Your task to perform on an android device: make emails show in primary in the gmail app Image 0: 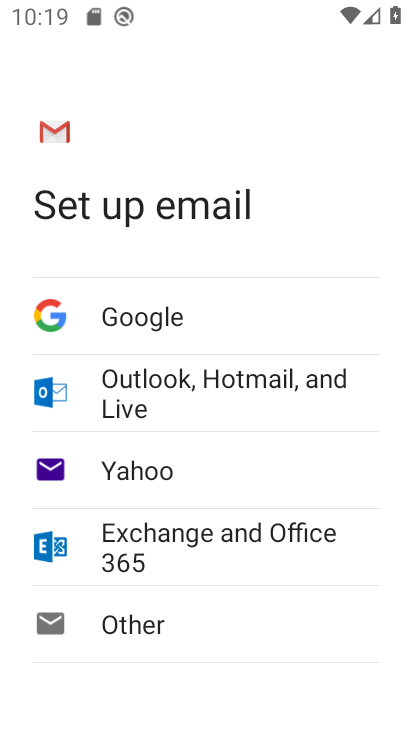
Step 0: press home button
Your task to perform on an android device: make emails show in primary in the gmail app Image 1: 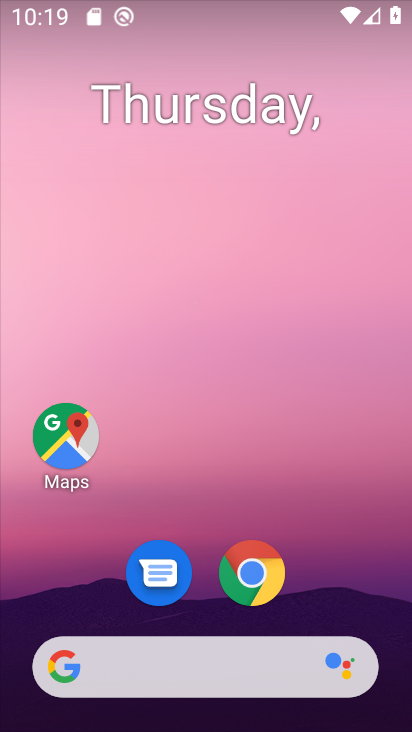
Step 1: drag from (164, 633) to (153, 0)
Your task to perform on an android device: make emails show in primary in the gmail app Image 2: 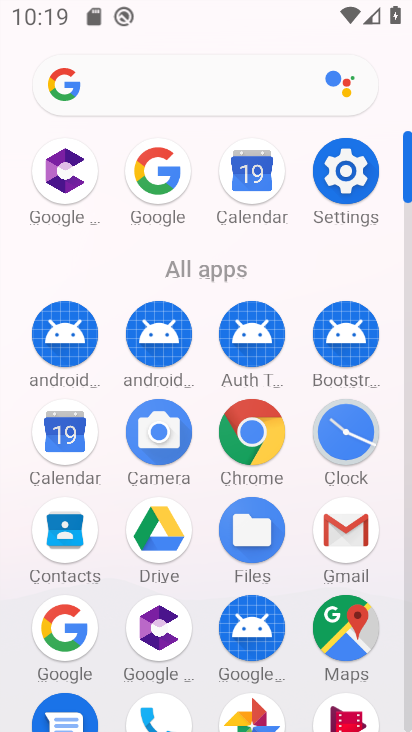
Step 2: click (371, 557)
Your task to perform on an android device: make emails show in primary in the gmail app Image 3: 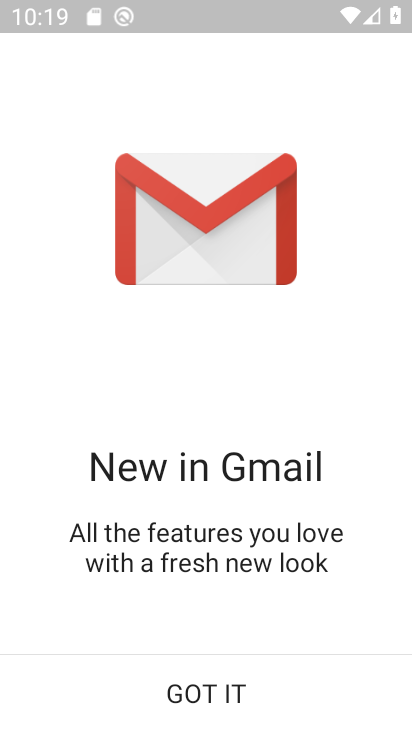
Step 3: click (225, 688)
Your task to perform on an android device: make emails show in primary in the gmail app Image 4: 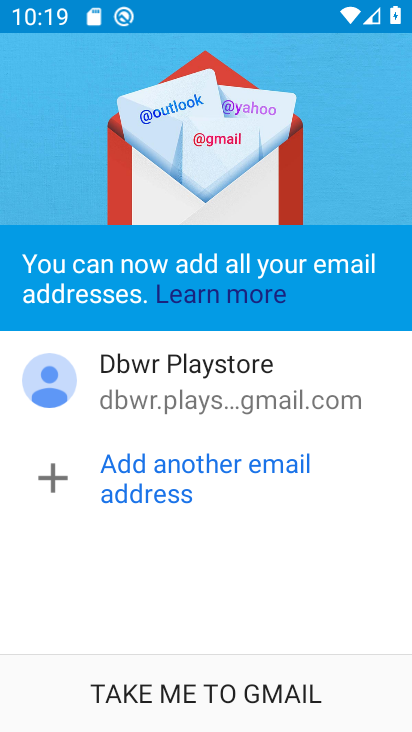
Step 4: click (225, 688)
Your task to perform on an android device: make emails show in primary in the gmail app Image 5: 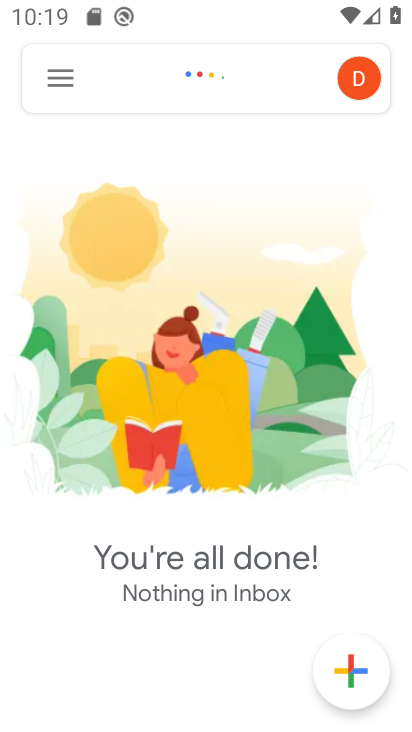
Step 5: click (43, 72)
Your task to perform on an android device: make emails show in primary in the gmail app Image 6: 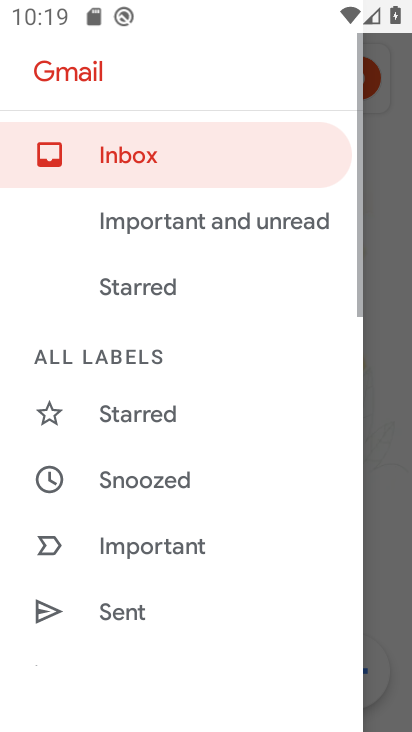
Step 6: drag from (162, 532) to (125, 1)
Your task to perform on an android device: make emails show in primary in the gmail app Image 7: 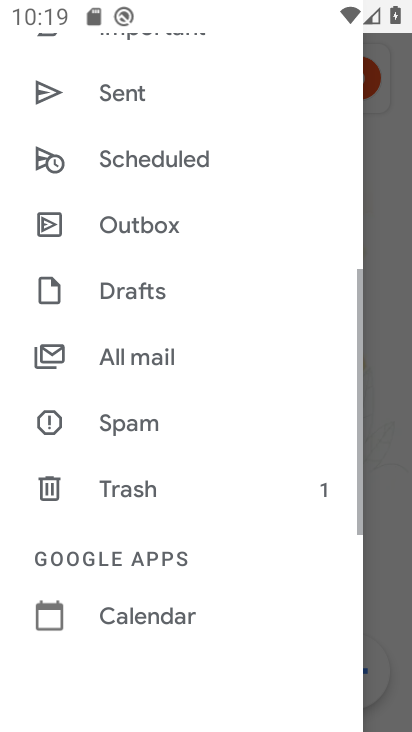
Step 7: drag from (109, 659) to (66, 52)
Your task to perform on an android device: make emails show in primary in the gmail app Image 8: 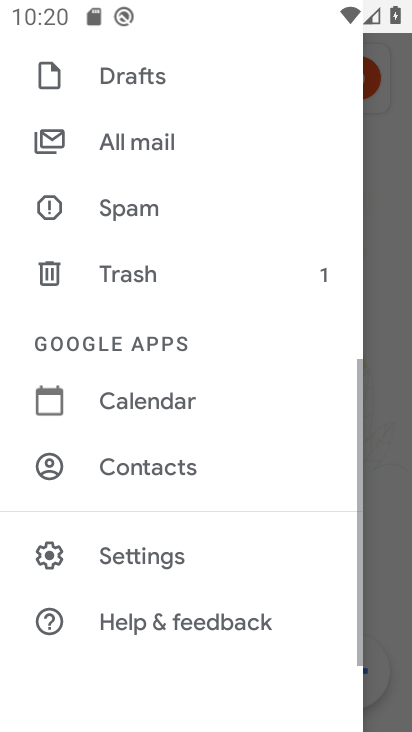
Step 8: click (127, 556)
Your task to perform on an android device: make emails show in primary in the gmail app Image 9: 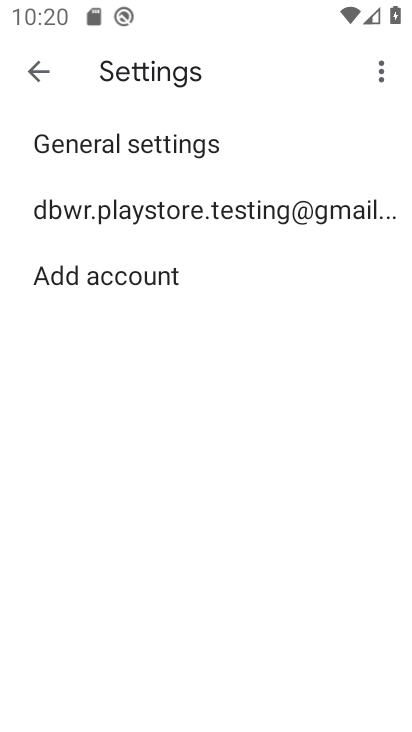
Step 9: click (102, 210)
Your task to perform on an android device: make emails show in primary in the gmail app Image 10: 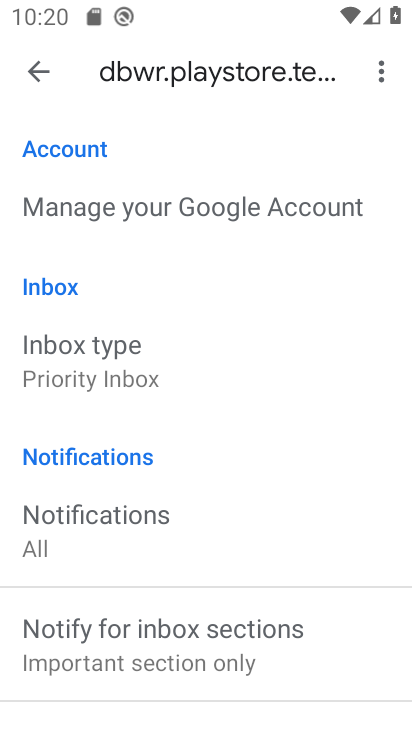
Step 10: click (121, 362)
Your task to perform on an android device: make emails show in primary in the gmail app Image 11: 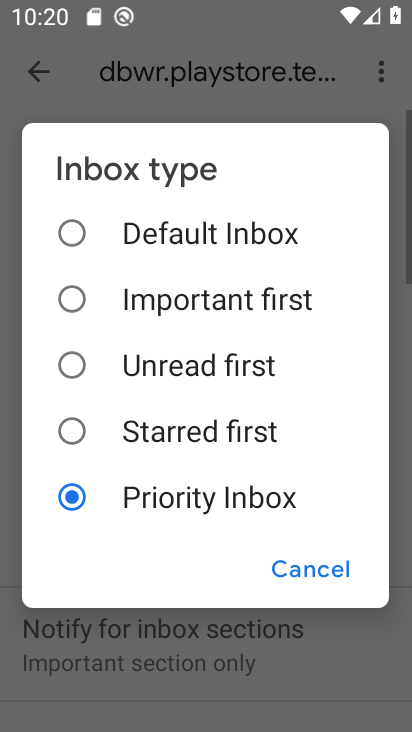
Step 11: click (182, 246)
Your task to perform on an android device: make emails show in primary in the gmail app Image 12: 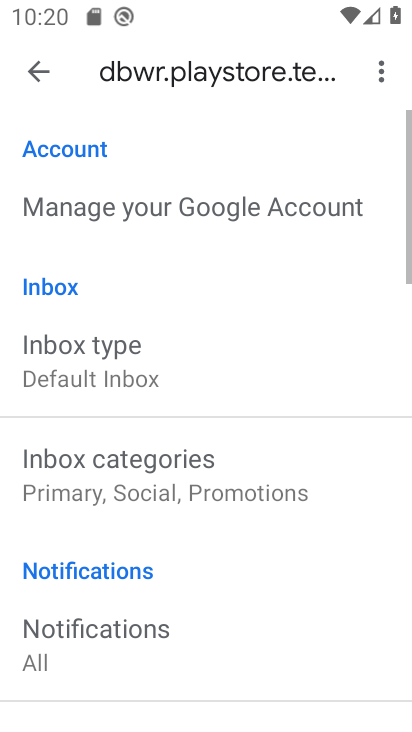
Step 12: click (48, 58)
Your task to perform on an android device: make emails show in primary in the gmail app Image 13: 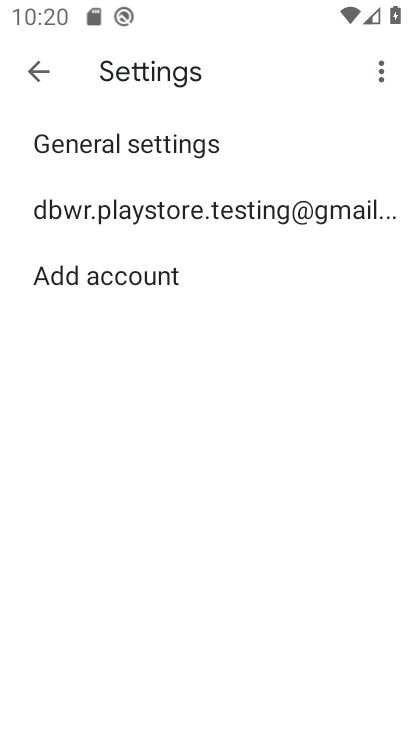
Step 13: click (44, 75)
Your task to perform on an android device: make emails show in primary in the gmail app Image 14: 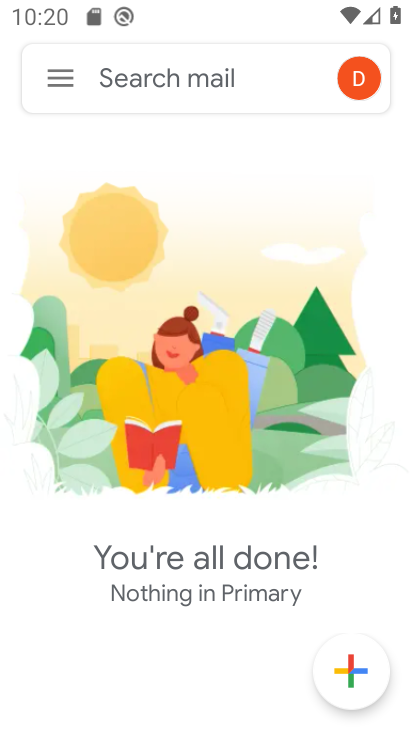
Step 14: task complete